Your task to perform on an android device: turn off notifications in google photos Image 0: 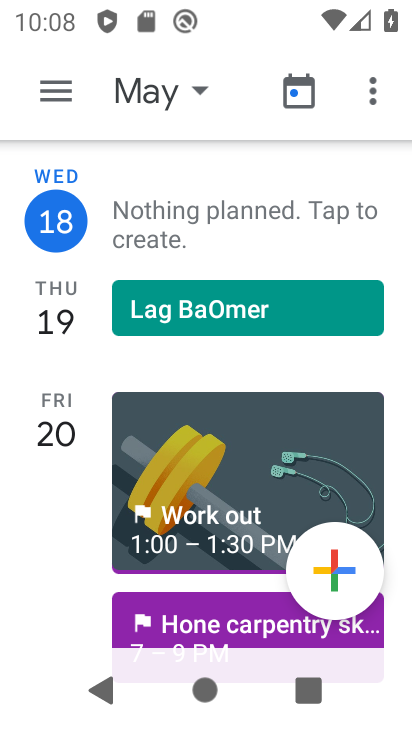
Step 0: press back button
Your task to perform on an android device: turn off notifications in google photos Image 1: 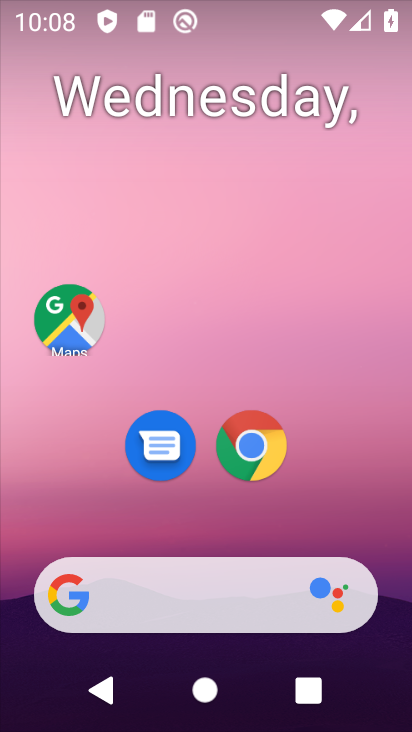
Step 1: drag from (239, 532) to (284, 99)
Your task to perform on an android device: turn off notifications in google photos Image 2: 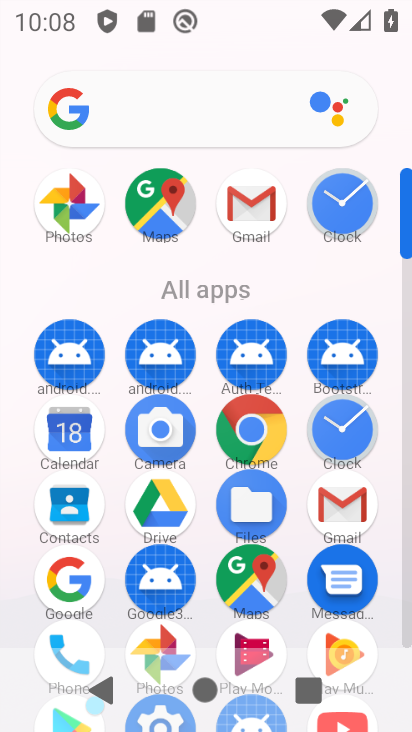
Step 2: drag from (223, 562) to (320, 159)
Your task to perform on an android device: turn off notifications in google photos Image 3: 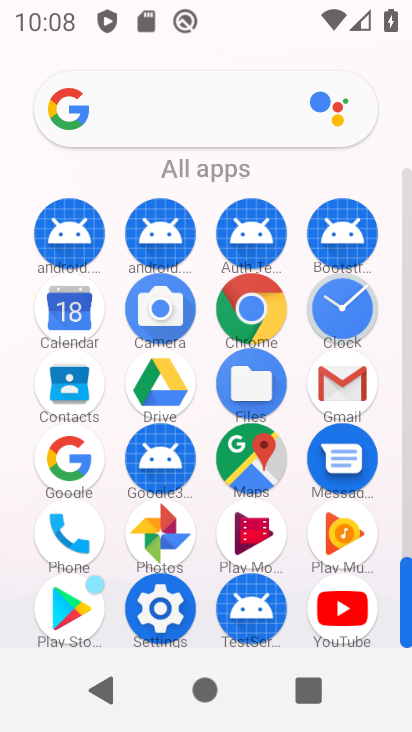
Step 3: click (161, 533)
Your task to perform on an android device: turn off notifications in google photos Image 4: 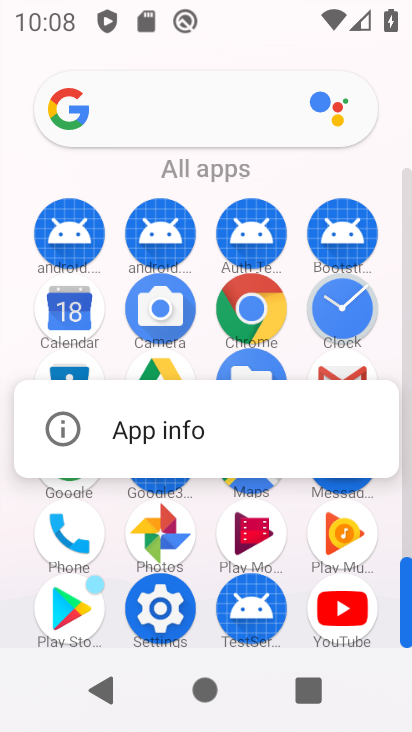
Step 4: click (70, 427)
Your task to perform on an android device: turn off notifications in google photos Image 5: 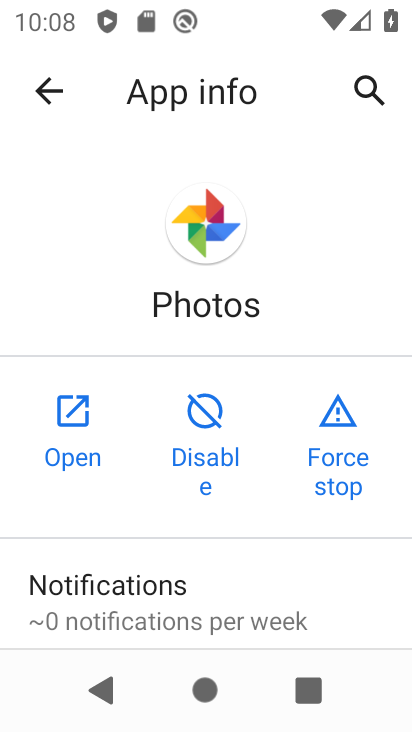
Step 5: click (166, 600)
Your task to perform on an android device: turn off notifications in google photos Image 6: 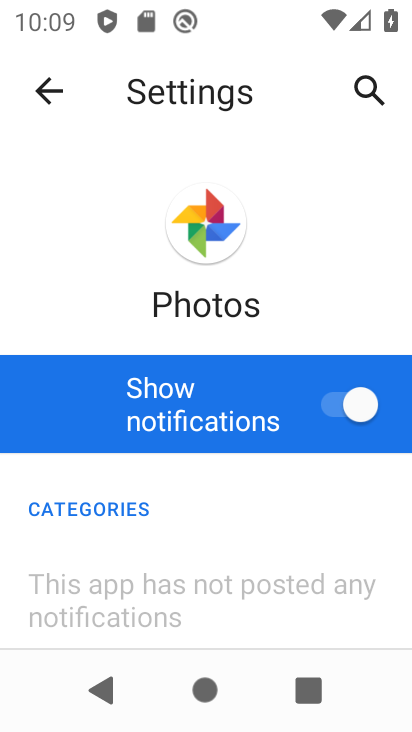
Step 6: click (347, 393)
Your task to perform on an android device: turn off notifications in google photos Image 7: 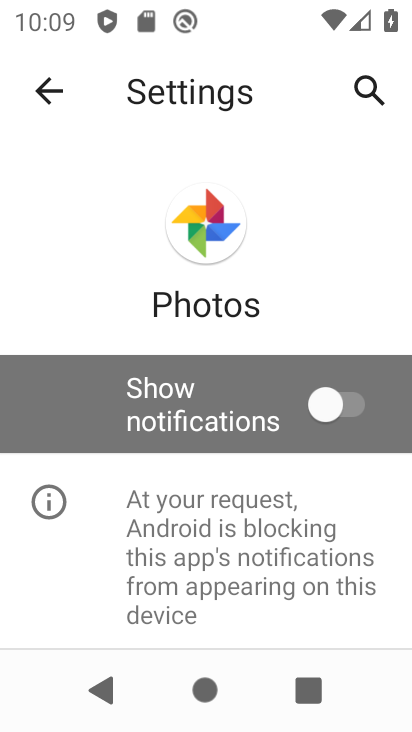
Step 7: task complete